Your task to perform on an android device: Open Chrome and go to settings Image 0: 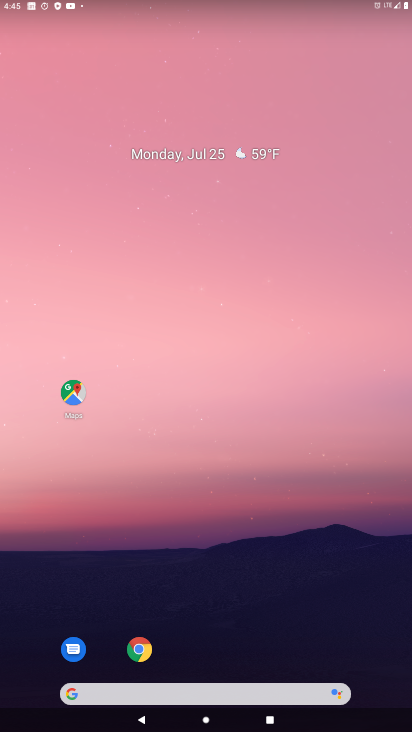
Step 0: drag from (280, 624) to (411, 93)
Your task to perform on an android device: Open Chrome and go to settings Image 1: 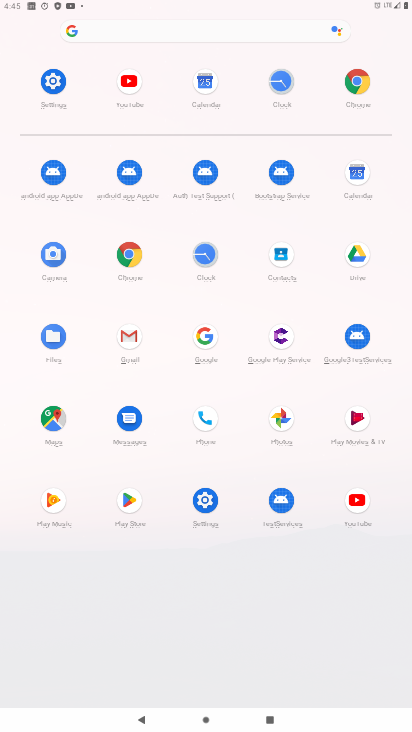
Step 1: click (57, 90)
Your task to perform on an android device: Open Chrome and go to settings Image 2: 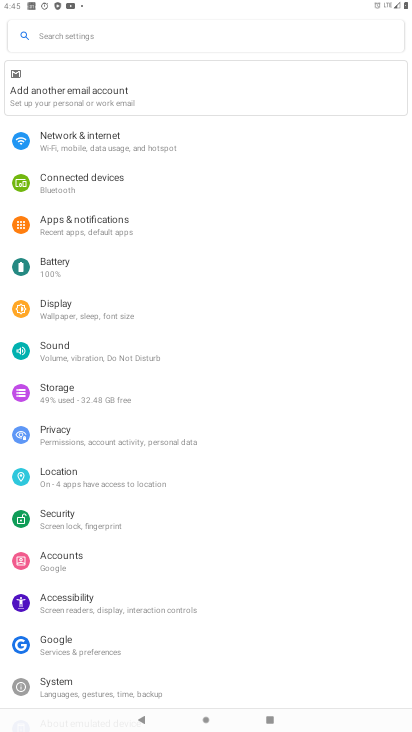
Step 2: press home button
Your task to perform on an android device: Open Chrome and go to settings Image 3: 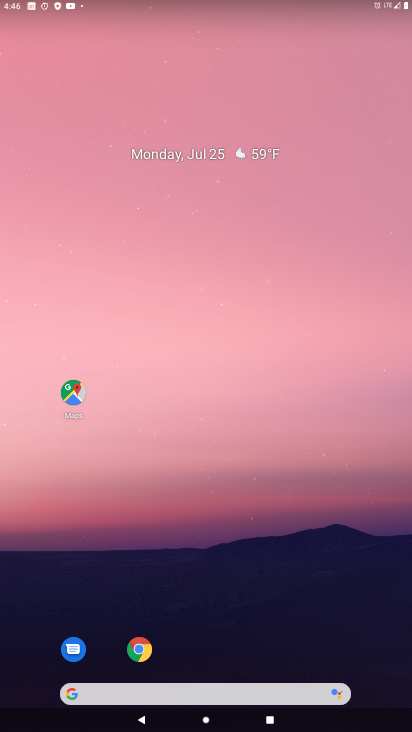
Step 3: drag from (282, 638) to (235, 83)
Your task to perform on an android device: Open Chrome and go to settings Image 4: 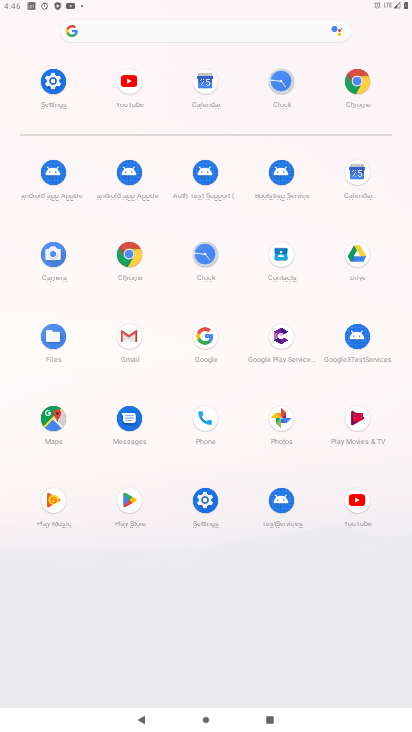
Step 4: click (359, 88)
Your task to perform on an android device: Open Chrome and go to settings Image 5: 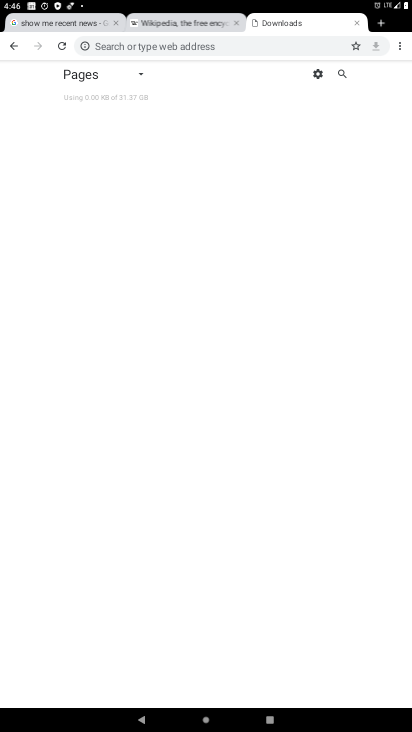
Step 5: click (400, 50)
Your task to perform on an android device: Open Chrome and go to settings Image 6: 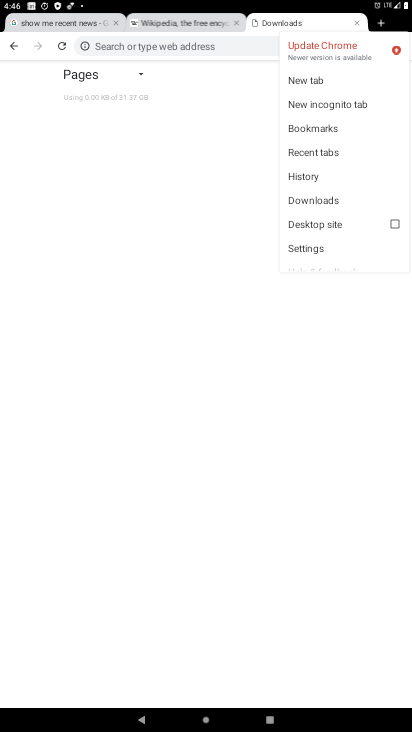
Step 6: click (343, 254)
Your task to perform on an android device: Open Chrome and go to settings Image 7: 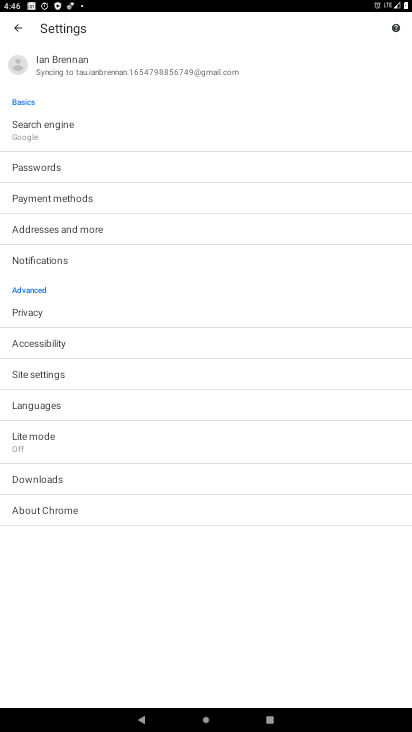
Step 7: task complete